Your task to perform on an android device: Open Youtube and go to "Your channel" Image 0: 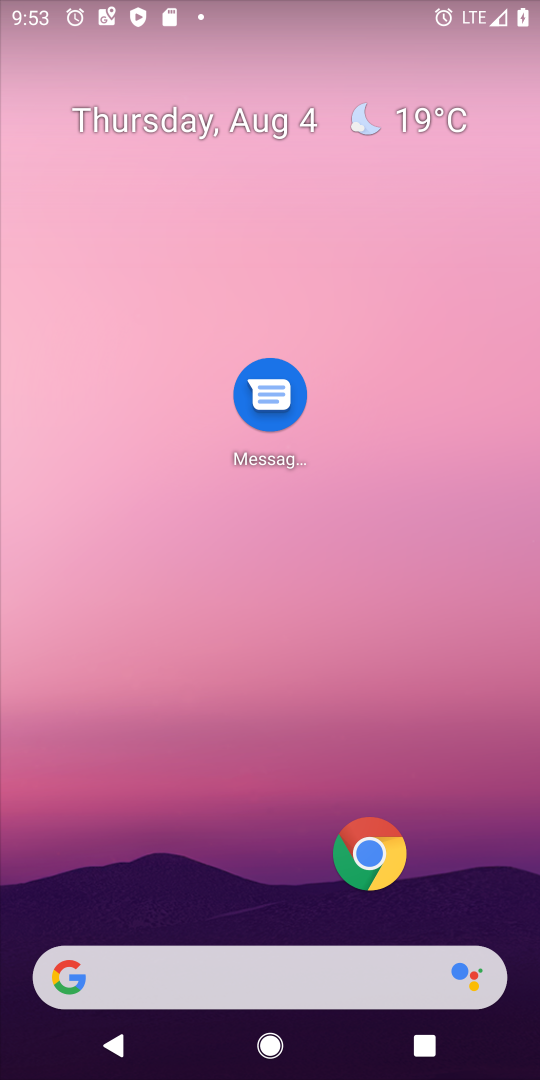
Step 0: drag from (175, 764) to (175, 396)
Your task to perform on an android device: Open Youtube and go to "Your channel" Image 1: 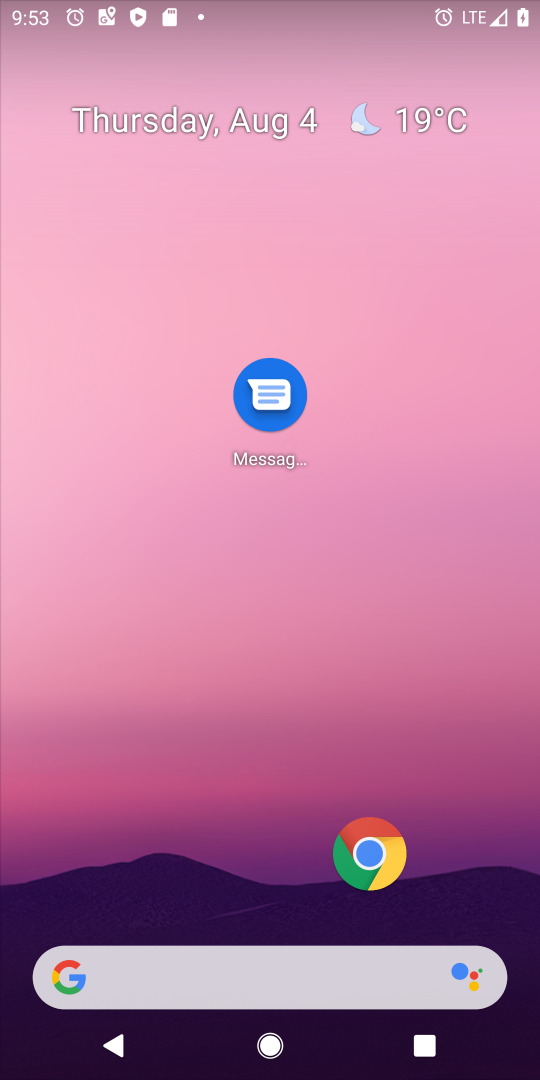
Step 1: drag from (318, 947) to (318, 601)
Your task to perform on an android device: Open Youtube and go to "Your channel" Image 2: 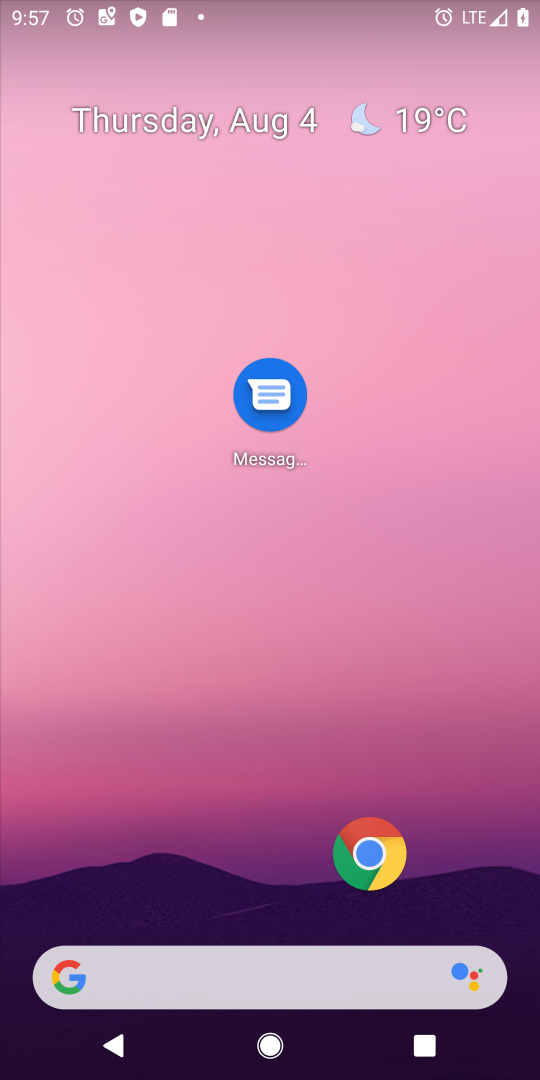
Step 2: drag from (297, 942) to (193, 240)
Your task to perform on an android device: Open Youtube and go to "Your channel" Image 3: 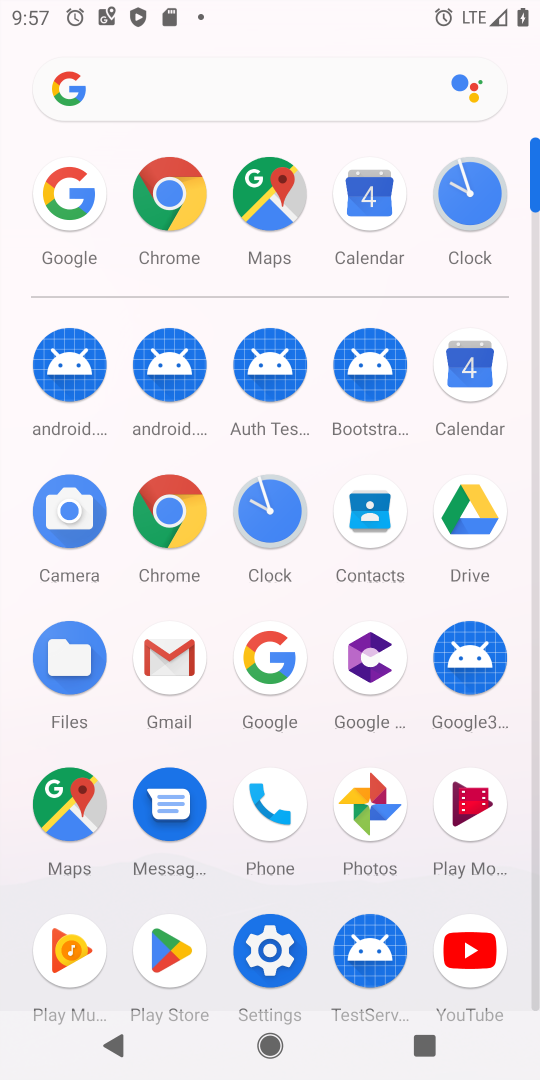
Step 3: click (479, 950)
Your task to perform on an android device: Open Youtube and go to "Your channel" Image 4: 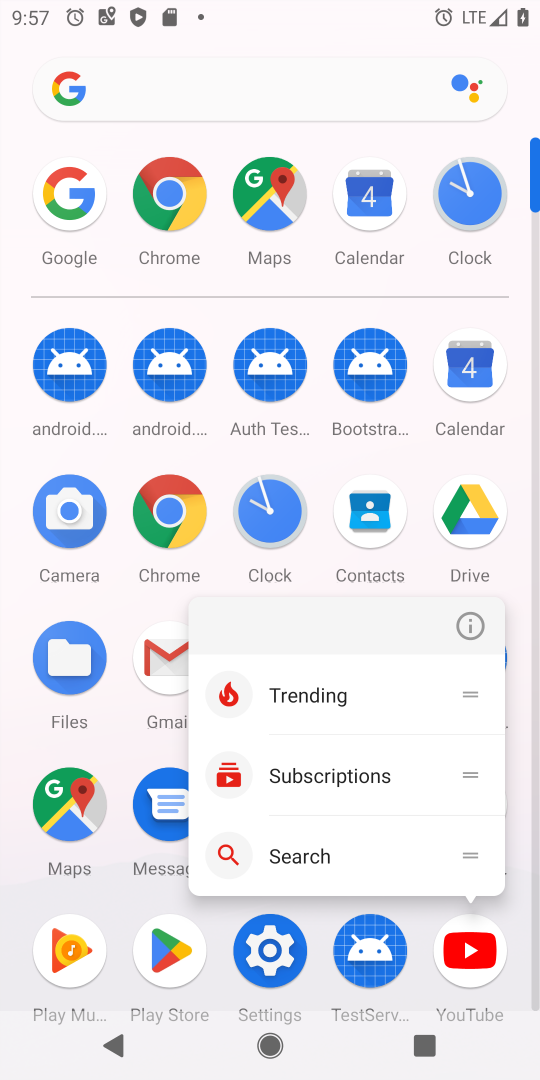
Step 4: click (479, 950)
Your task to perform on an android device: Open Youtube and go to "Your channel" Image 5: 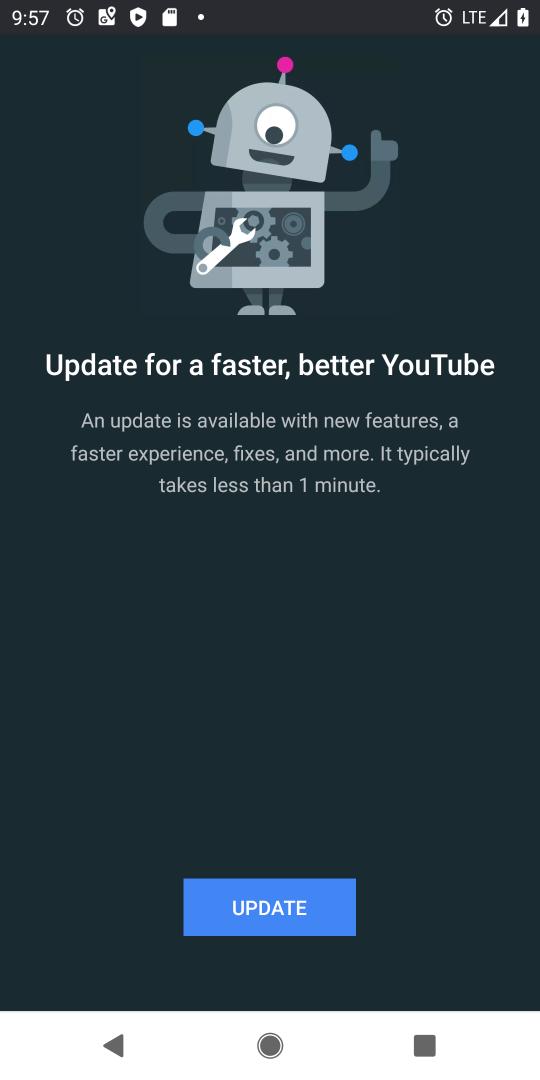
Step 5: click (310, 913)
Your task to perform on an android device: Open Youtube and go to "Your channel" Image 6: 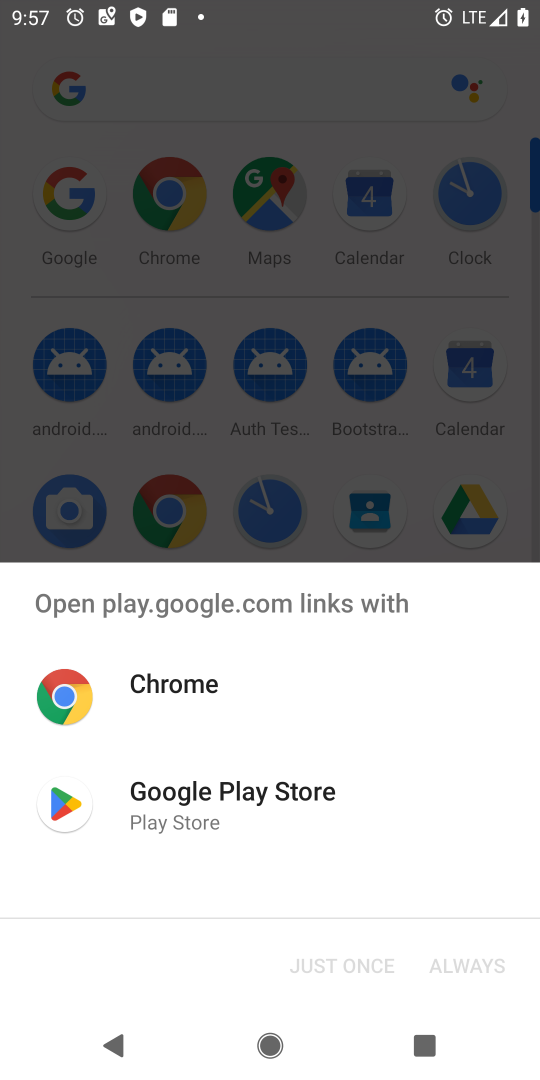
Step 6: click (156, 821)
Your task to perform on an android device: Open Youtube and go to "Your channel" Image 7: 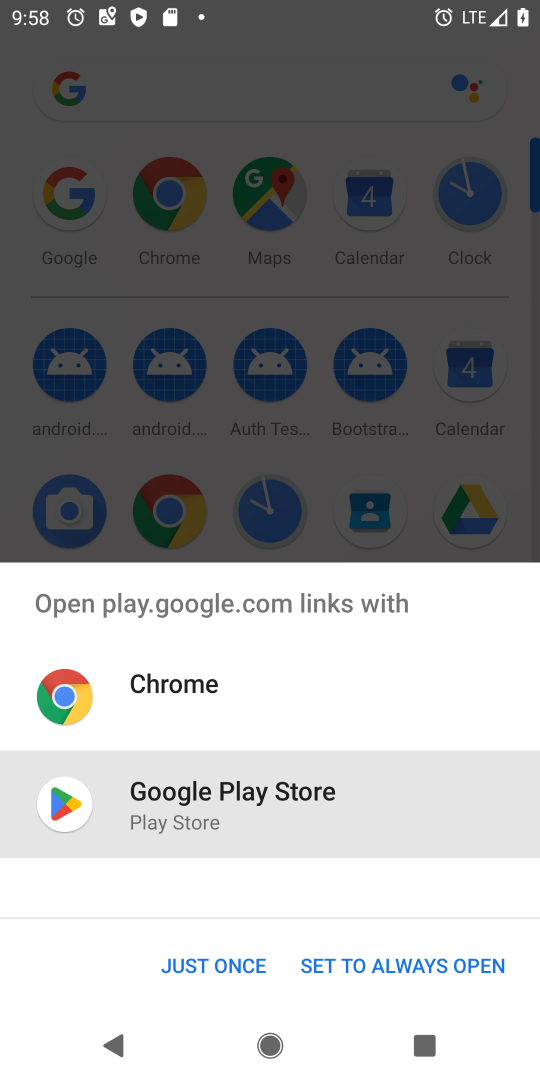
Step 7: click (253, 964)
Your task to perform on an android device: Open Youtube and go to "Your channel" Image 8: 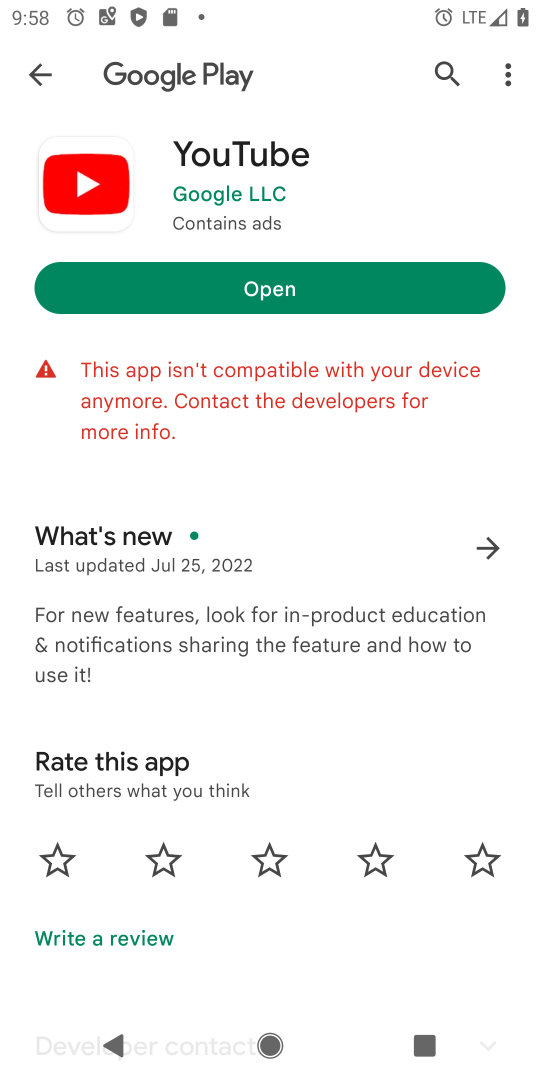
Step 8: click (233, 296)
Your task to perform on an android device: Open Youtube and go to "Your channel" Image 9: 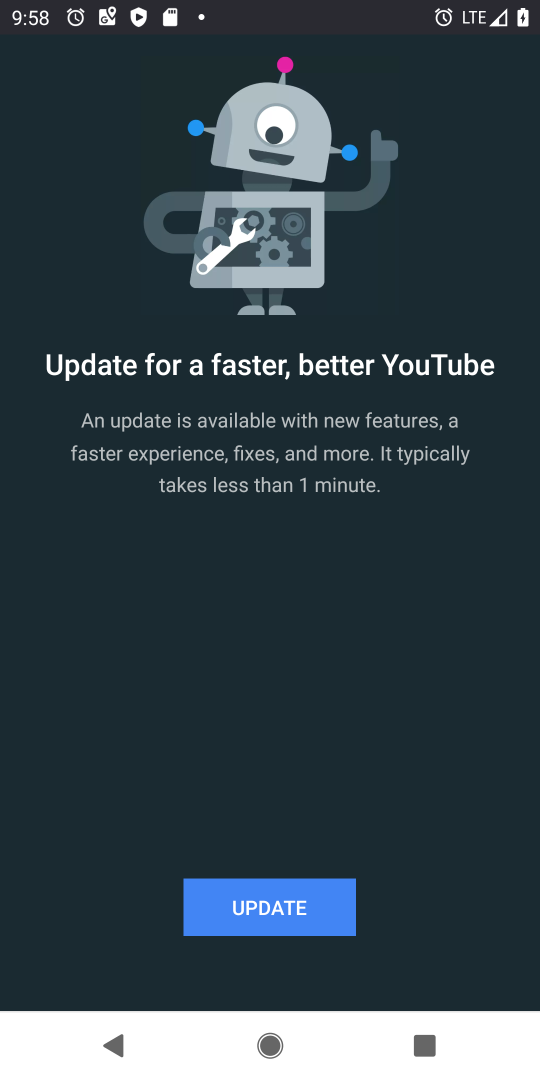
Step 9: task complete